Your task to perform on an android device: turn on showing notifications on the lock screen Image 0: 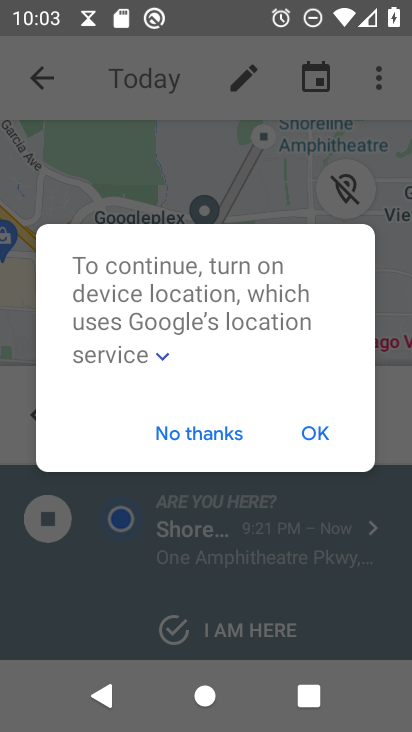
Step 0: press home button
Your task to perform on an android device: turn on showing notifications on the lock screen Image 1: 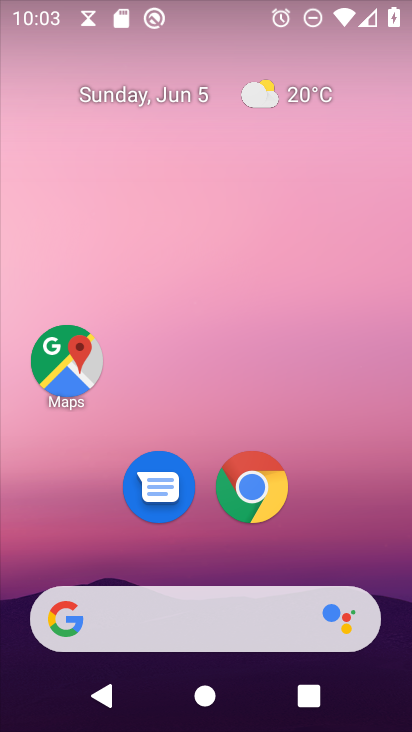
Step 1: drag from (351, 557) to (351, 212)
Your task to perform on an android device: turn on showing notifications on the lock screen Image 2: 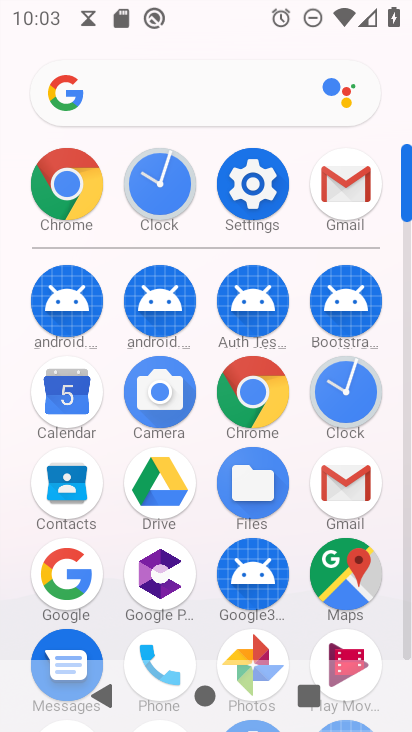
Step 2: click (248, 181)
Your task to perform on an android device: turn on showing notifications on the lock screen Image 3: 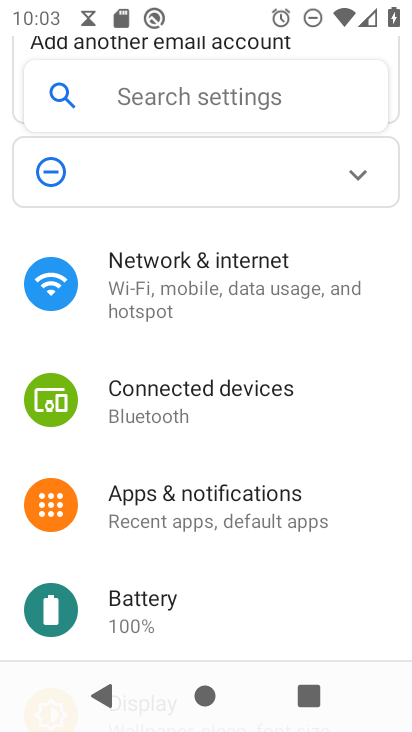
Step 3: click (226, 493)
Your task to perform on an android device: turn on showing notifications on the lock screen Image 4: 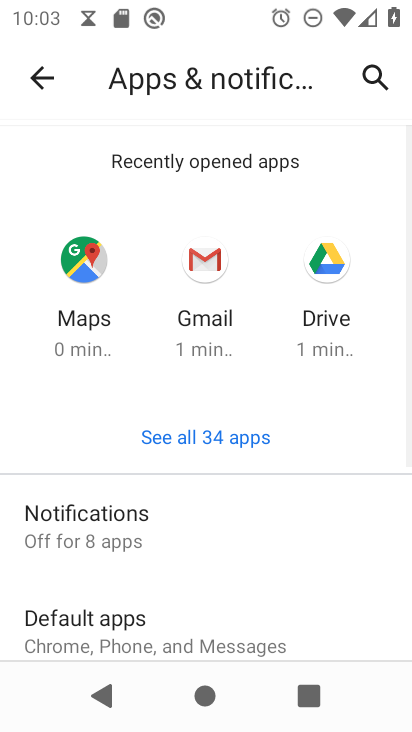
Step 4: drag from (172, 564) to (213, 270)
Your task to perform on an android device: turn on showing notifications on the lock screen Image 5: 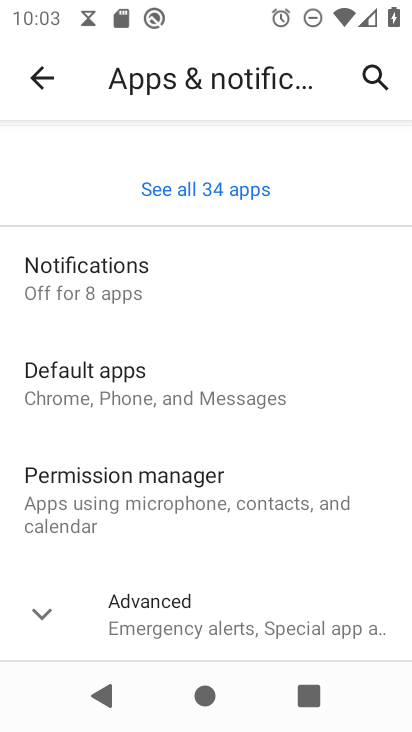
Step 5: click (128, 276)
Your task to perform on an android device: turn on showing notifications on the lock screen Image 6: 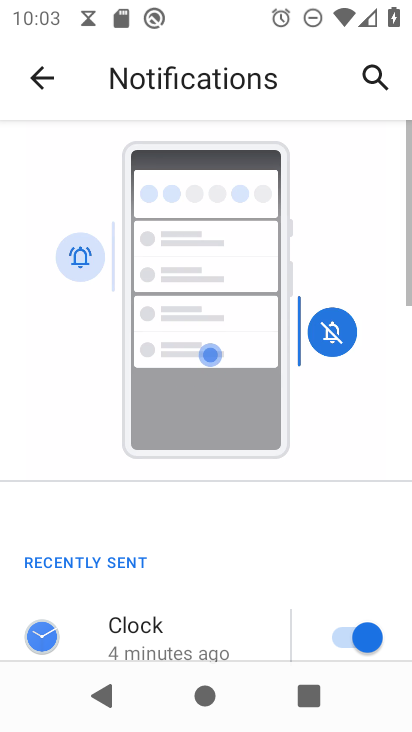
Step 6: task complete